Your task to perform on an android device: Go to eBay Image 0: 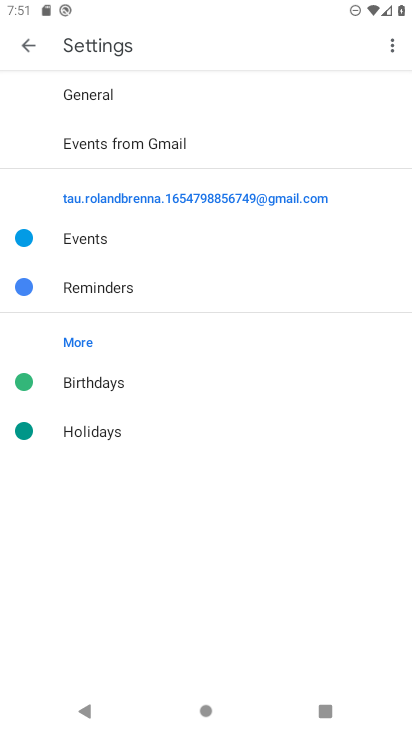
Step 0: press home button
Your task to perform on an android device: Go to eBay Image 1: 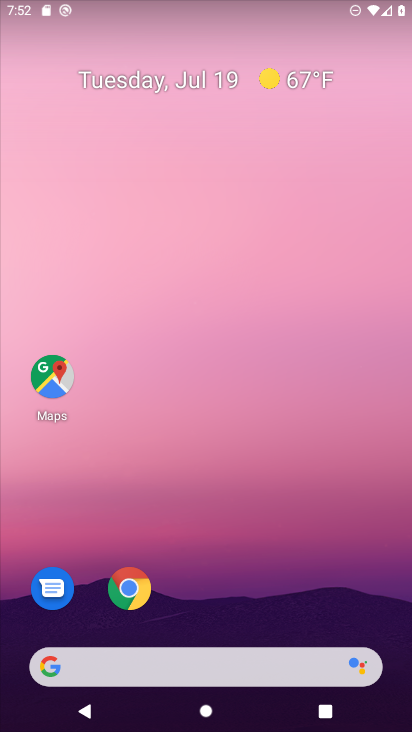
Step 1: drag from (310, 576) to (356, 69)
Your task to perform on an android device: Go to eBay Image 2: 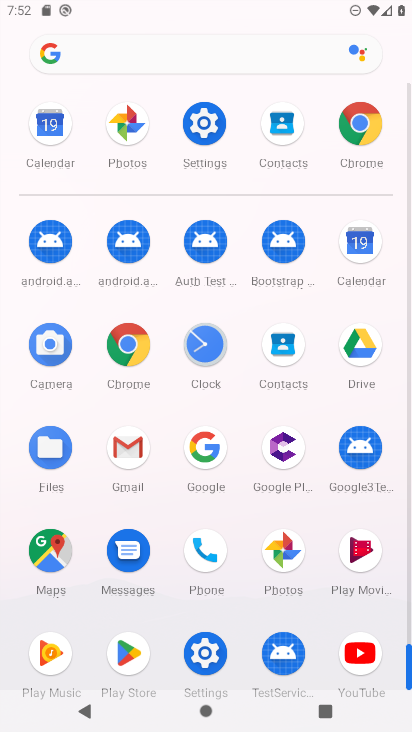
Step 2: click (371, 128)
Your task to perform on an android device: Go to eBay Image 3: 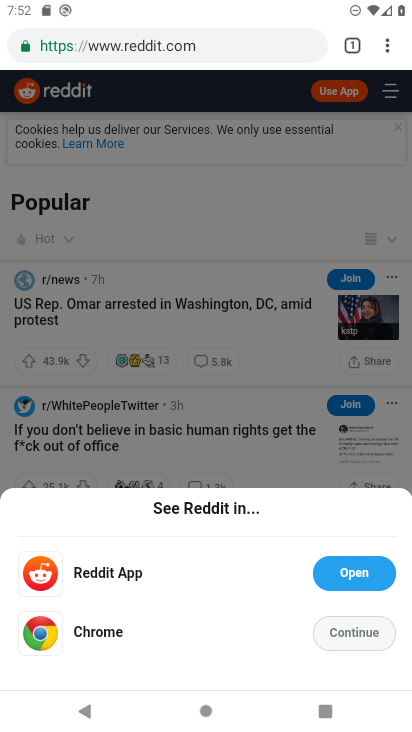
Step 3: click (247, 49)
Your task to perform on an android device: Go to eBay Image 4: 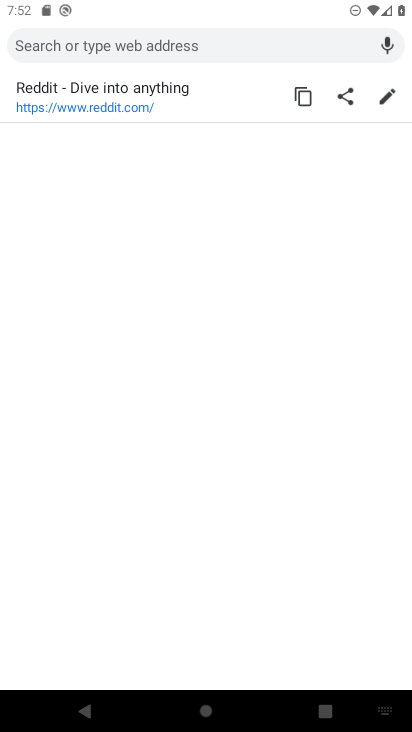
Step 4: type "ebay"
Your task to perform on an android device: Go to eBay Image 5: 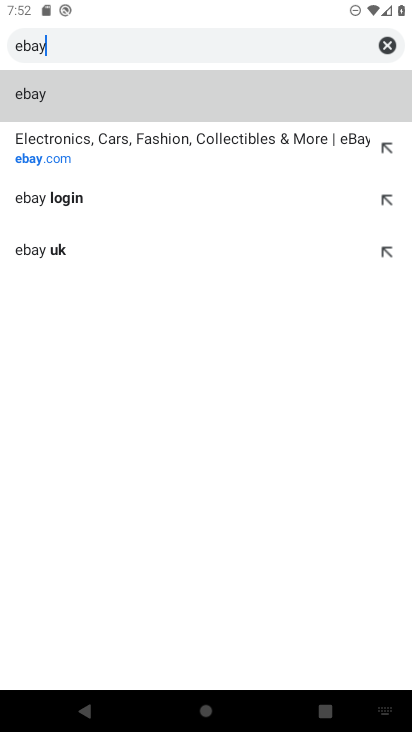
Step 5: click (242, 100)
Your task to perform on an android device: Go to eBay Image 6: 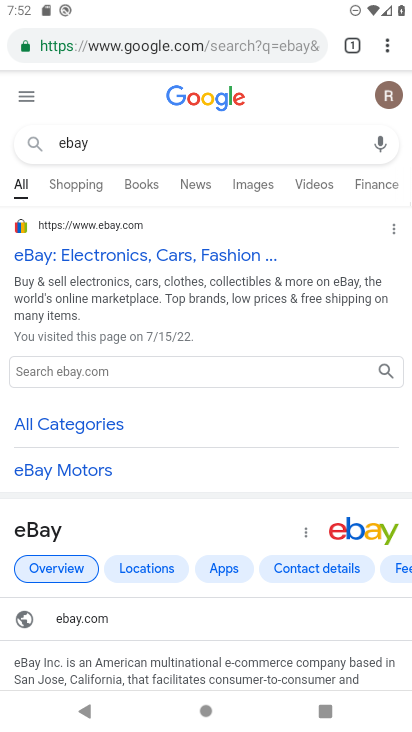
Step 6: task complete